Your task to perform on an android device: Go to settings Image 0: 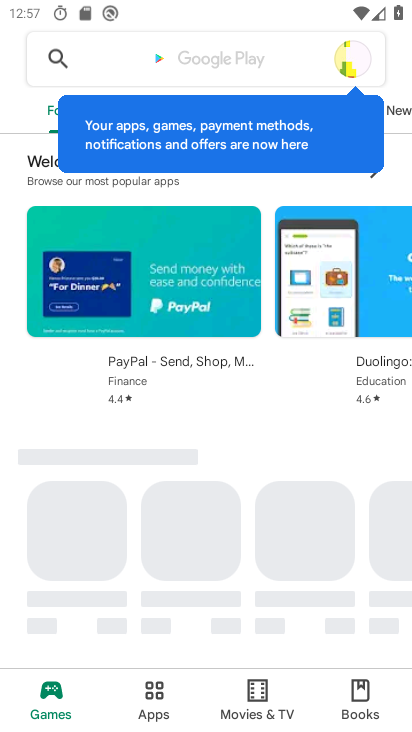
Step 0: press home button
Your task to perform on an android device: Go to settings Image 1: 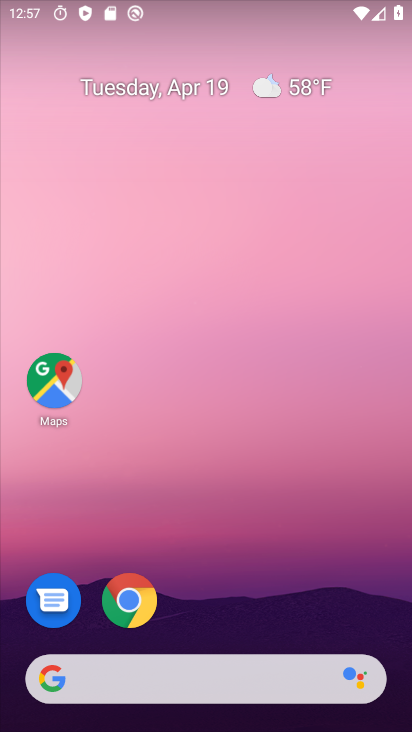
Step 1: drag from (265, 719) to (234, 222)
Your task to perform on an android device: Go to settings Image 2: 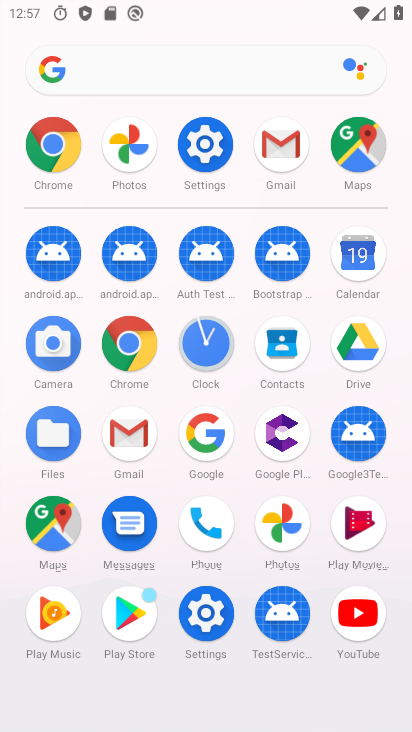
Step 2: click (200, 627)
Your task to perform on an android device: Go to settings Image 3: 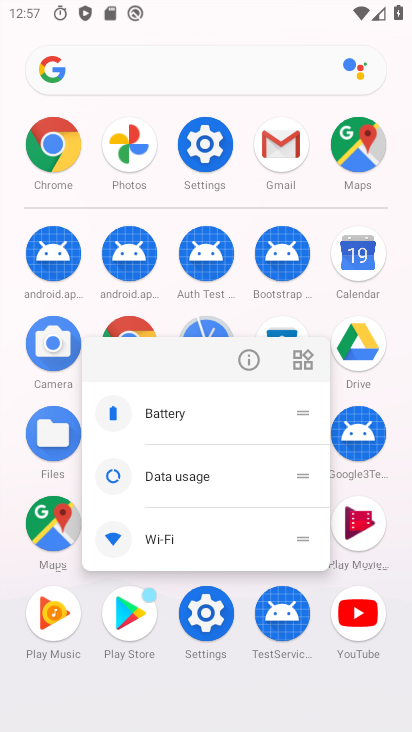
Step 3: click (207, 591)
Your task to perform on an android device: Go to settings Image 4: 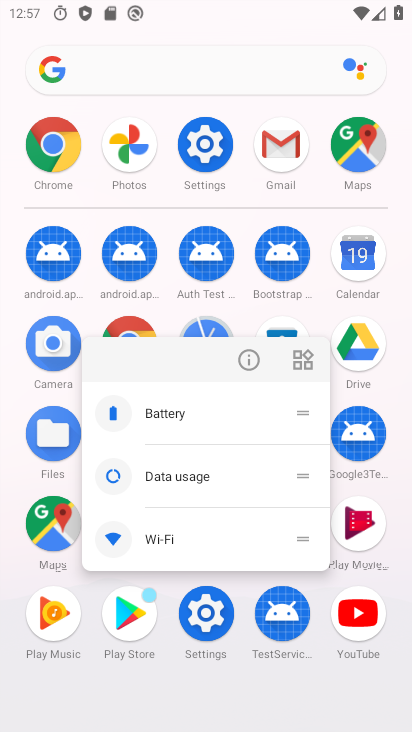
Step 4: click (207, 612)
Your task to perform on an android device: Go to settings Image 5: 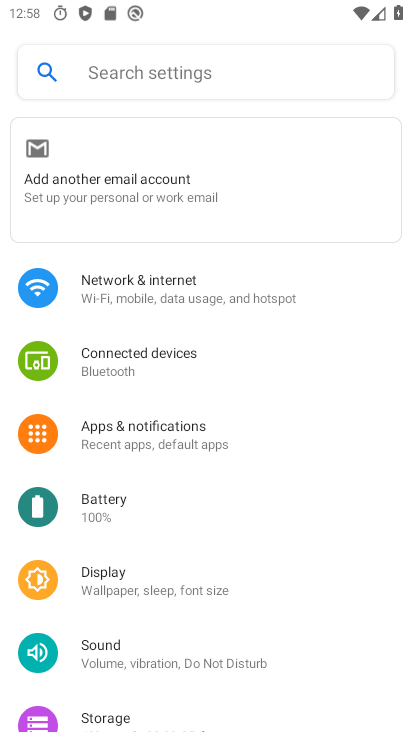
Step 5: task complete